Your task to perform on an android device: Go to sound settings Image 0: 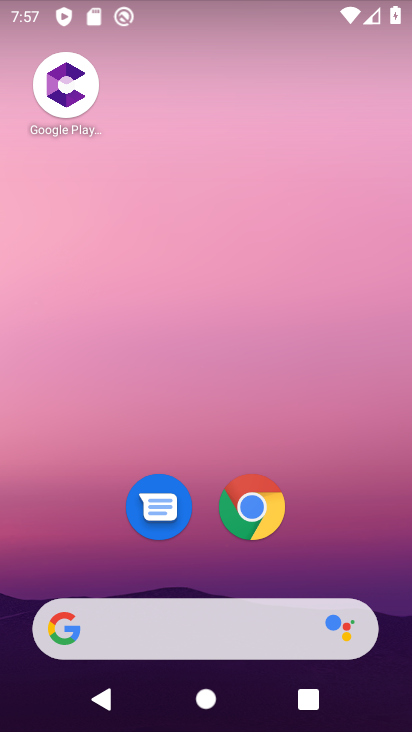
Step 0: drag from (229, 583) to (153, 3)
Your task to perform on an android device: Go to sound settings Image 1: 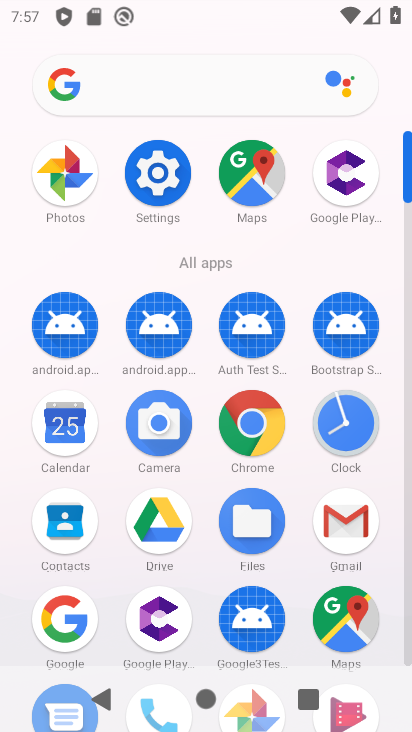
Step 1: click (145, 165)
Your task to perform on an android device: Go to sound settings Image 2: 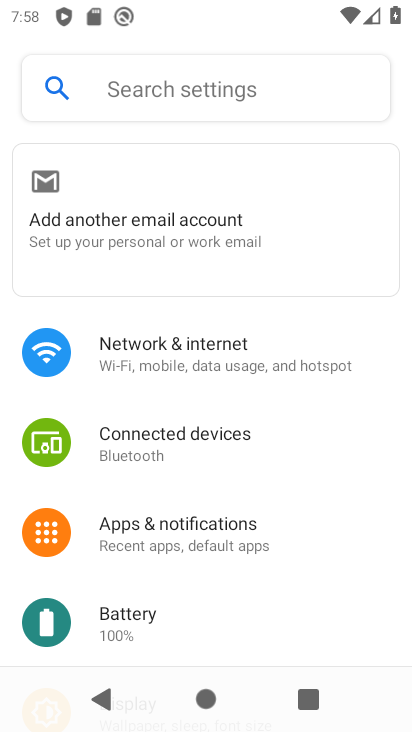
Step 2: drag from (222, 602) to (148, 54)
Your task to perform on an android device: Go to sound settings Image 3: 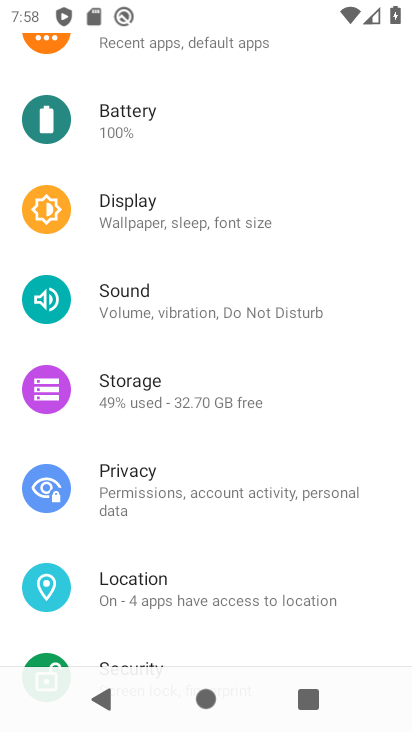
Step 3: click (125, 287)
Your task to perform on an android device: Go to sound settings Image 4: 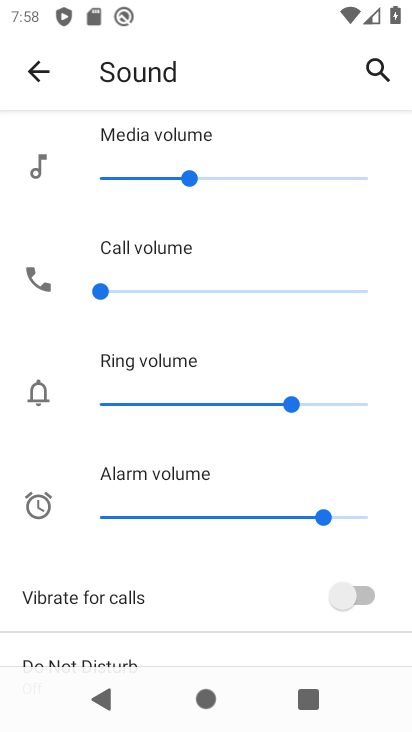
Step 4: task complete